Your task to perform on an android device: turn off javascript in the chrome app Image 0: 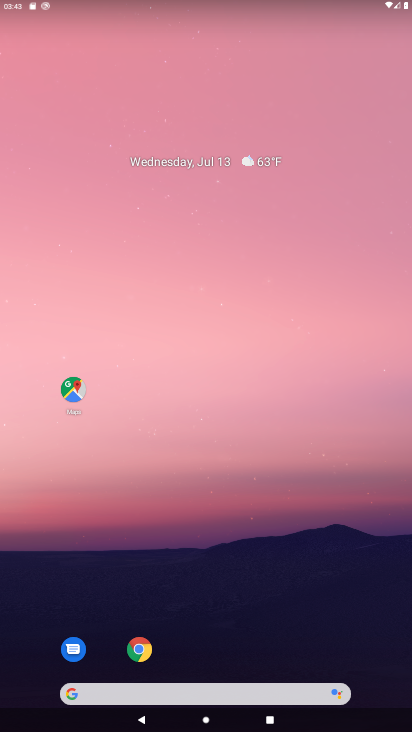
Step 0: click (144, 648)
Your task to perform on an android device: turn off javascript in the chrome app Image 1: 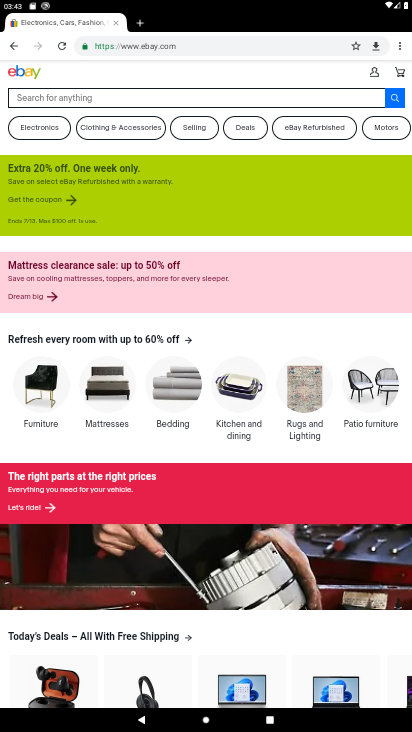
Step 1: click (402, 45)
Your task to perform on an android device: turn off javascript in the chrome app Image 2: 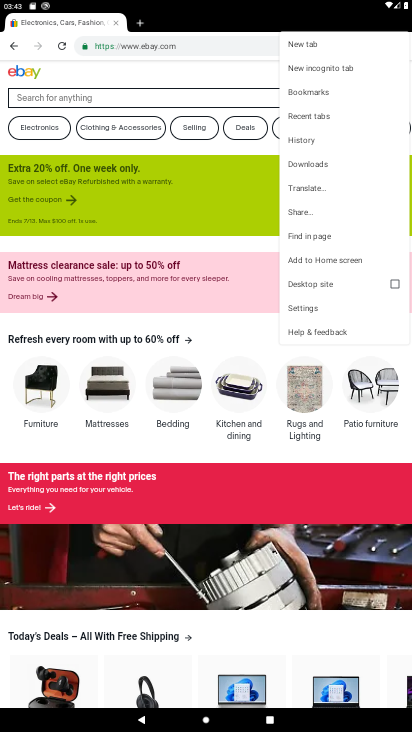
Step 2: click (309, 316)
Your task to perform on an android device: turn off javascript in the chrome app Image 3: 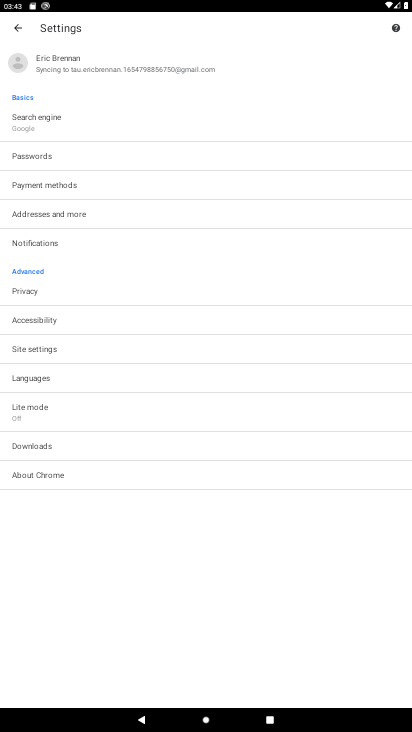
Step 3: click (27, 348)
Your task to perform on an android device: turn off javascript in the chrome app Image 4: 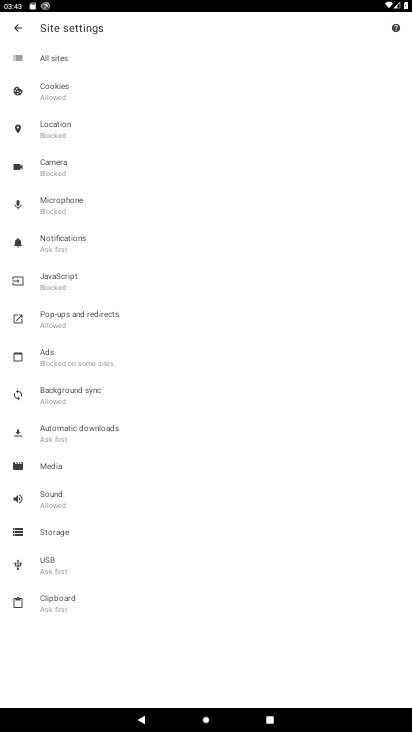
Step 4: click (65, 276)
Your task to perform on an android device: turn off javascript in the chrome app Image 5: 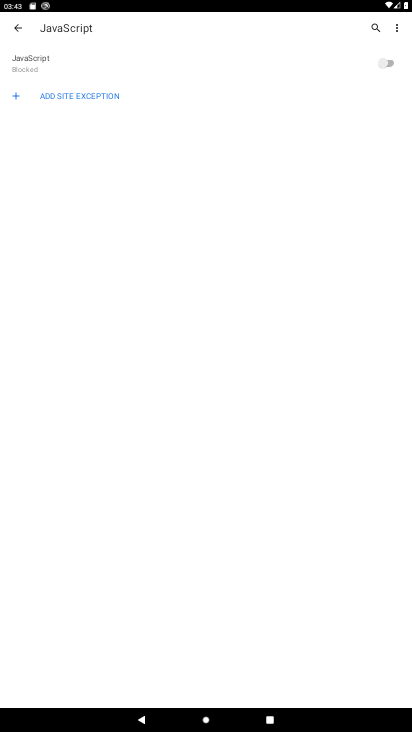
Step 5: task complete